Your task to perform on an android device: Play the last video I watched on Youtube Image 0: 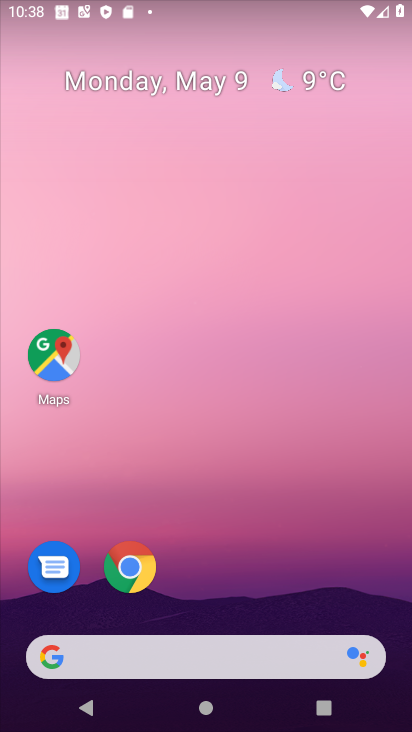
Step 0: drag from (212, 606) to (213, 32)
Your task to perform on an android device: Play the last video I watched on Youtube Image 1: 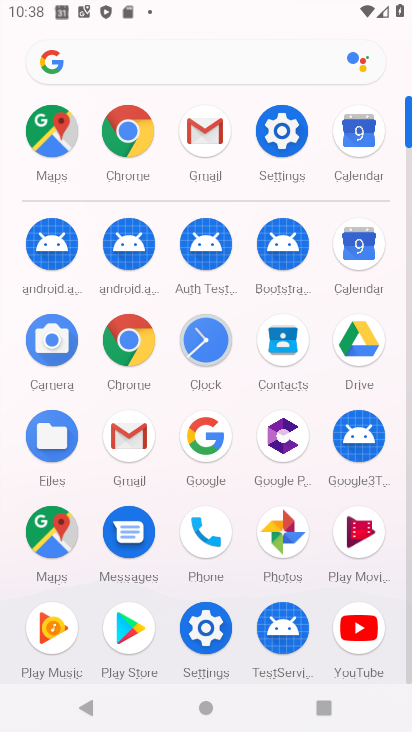
Step 1: click (357, 621)
Your task to perform on an android device: Play the last video I watched on Youtube Image 2: 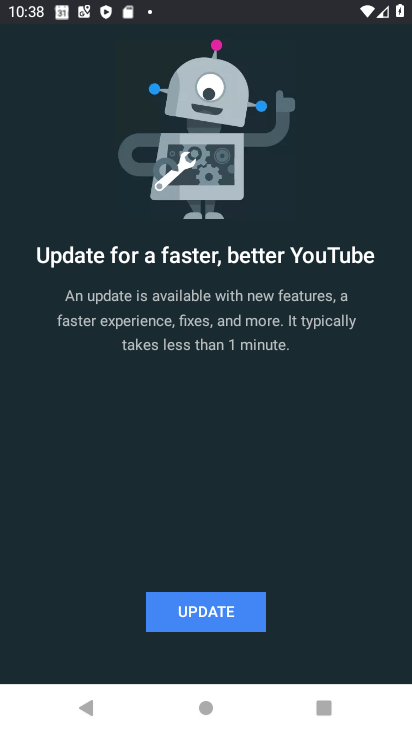
Step 2: click (175, 609)
Your task to perform on an android device: Play the last video I watched on Youtube Image 3: 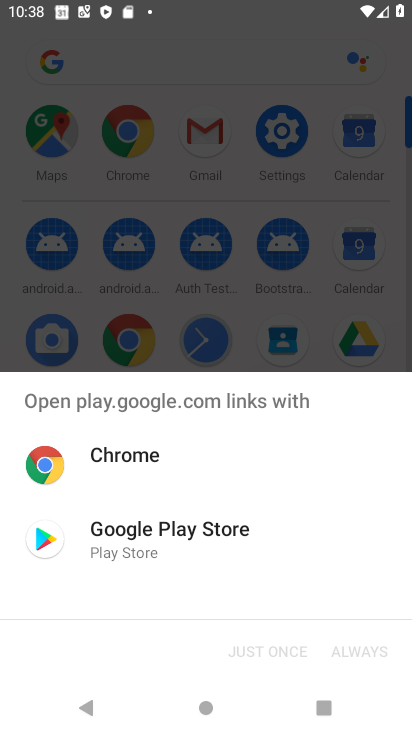
Step 3: click (143, 540)
Your task to perform on an android device: Play the last video I watched on Youtube Image 4: 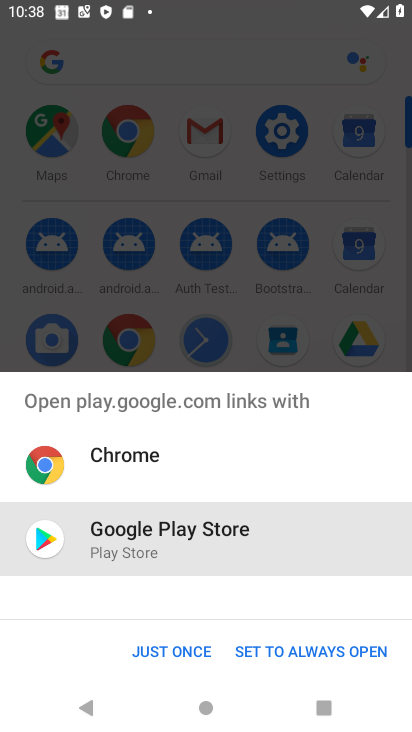
Step 4: click (165, 648)
Your task to perform on an android device: Play the last video I watched on Youtube Image 5: 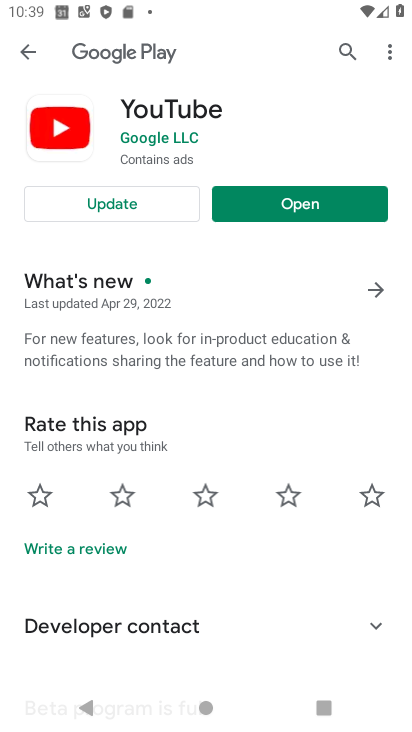
Step 5: click (113, 204)
Your task to perform on an android device: Play the last video I watched on Youtube Image 6: 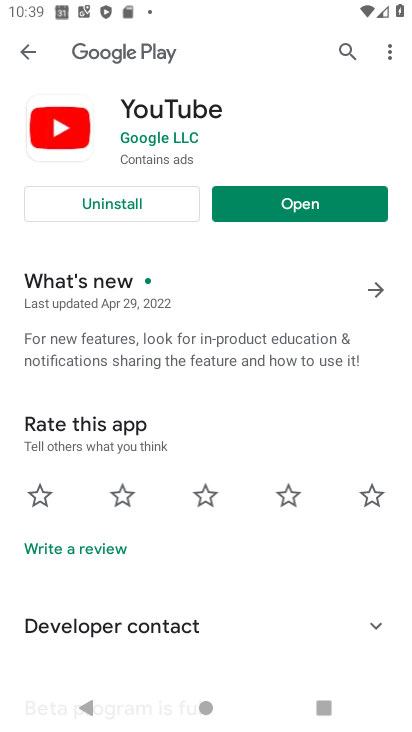
Step 6: click (298, 205)
Your task to perform on an android device: Play the last video I watched on Youtube Image 7: 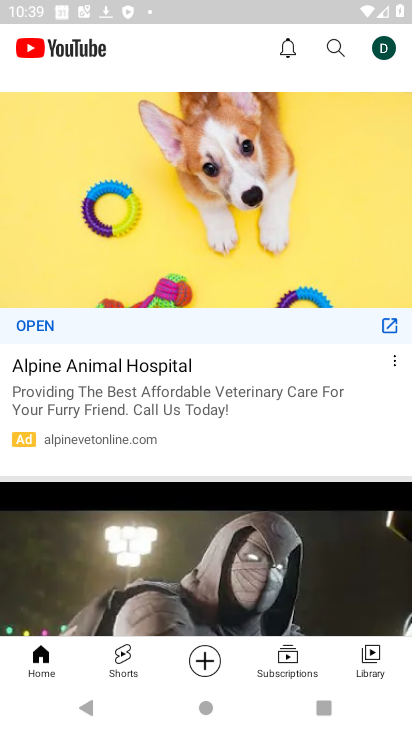
Step 7: click (370, 650)
Your task to perform on an android device: Play the last video I watched on Youtube Image 8: 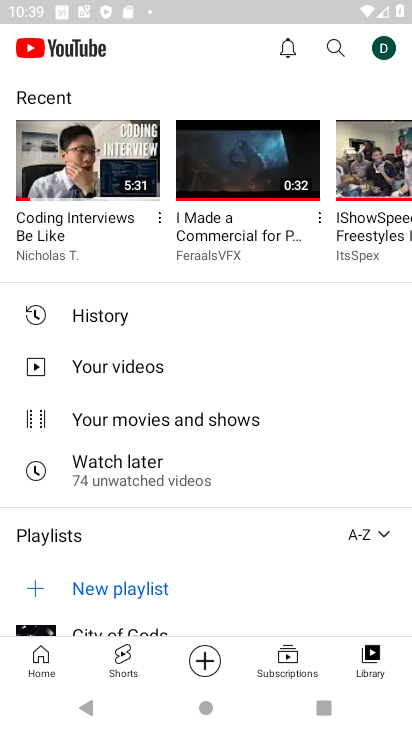
Step 8: click (85, 172)
Your task to perform on an android device: Play the last video I watched on Youtube Image 9: 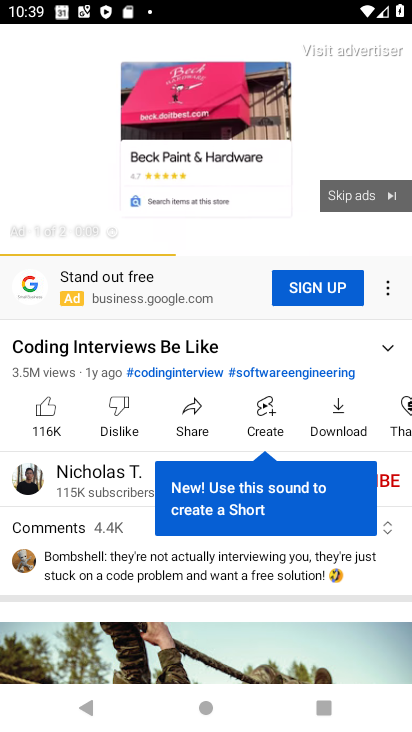
Step 9: click (362, 195)
Your task to perform on an android device: Play the last video I watched on Youtube Image 10: 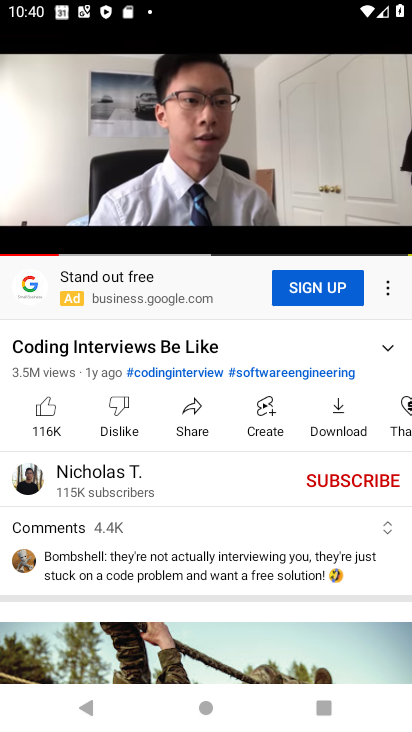
Step 10: task complete